Your task to perform on an android device: check data usage Image 0: 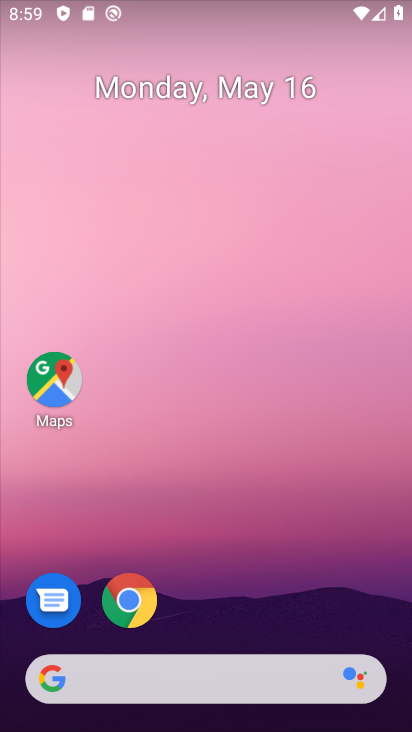
Step 0: drag from (229, 618) to (224, 101)
Your task to perform on an android device: check data usage Image 1: 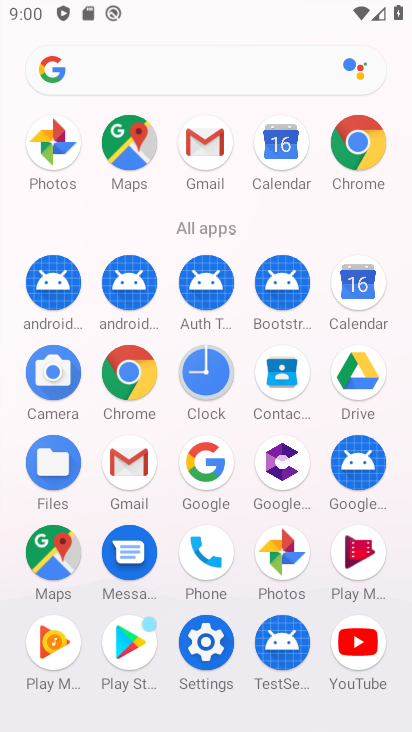
Step 1: click (204, 653)
Your task to perform on an android device: check data usage Image 2: 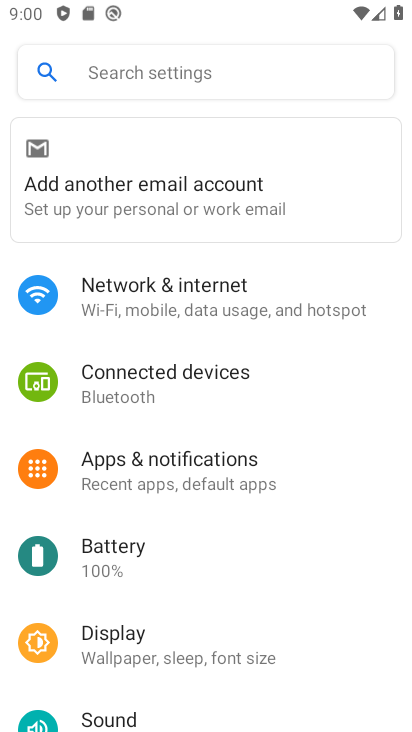
Step 2: click (164, 301)
Your task to perform on an android device: check data usage Image 3: 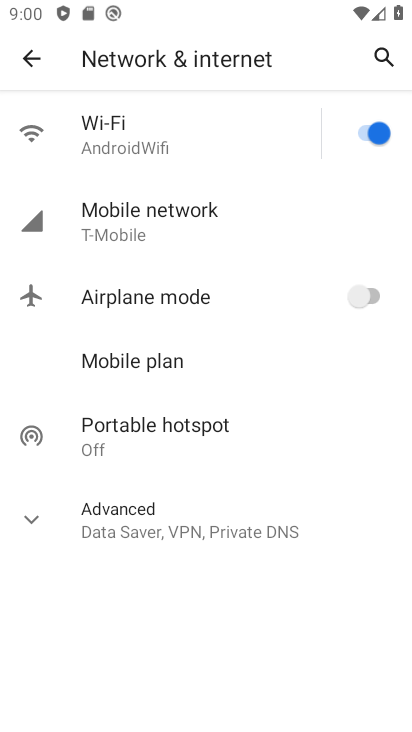
Step 3: click (130, 227)
Your task to perform on an android device: check data usage Image 4: 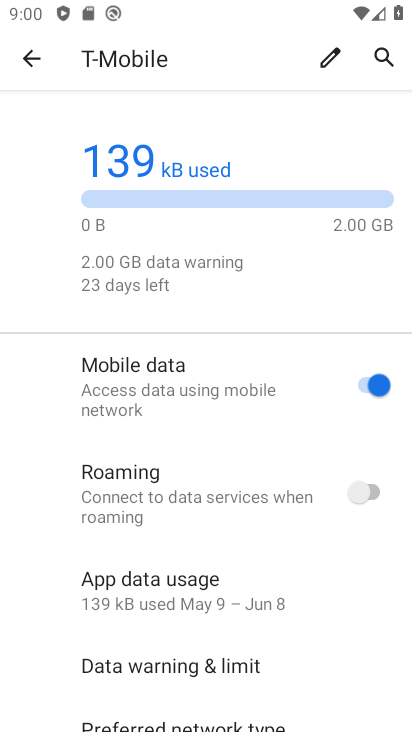
Step 4: task complete